Your task to perform on an android device: Go to privacy settings Image 0: 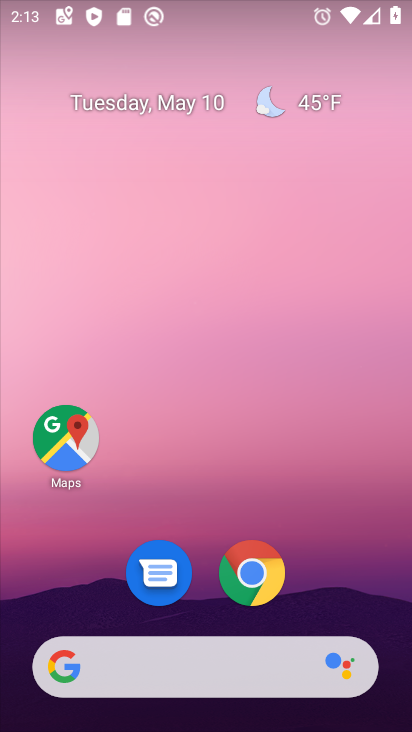
Step 0: drag from (221, 691) to (299, 14)
Your task to perform on an android device: Go to privacy settings Image 1: 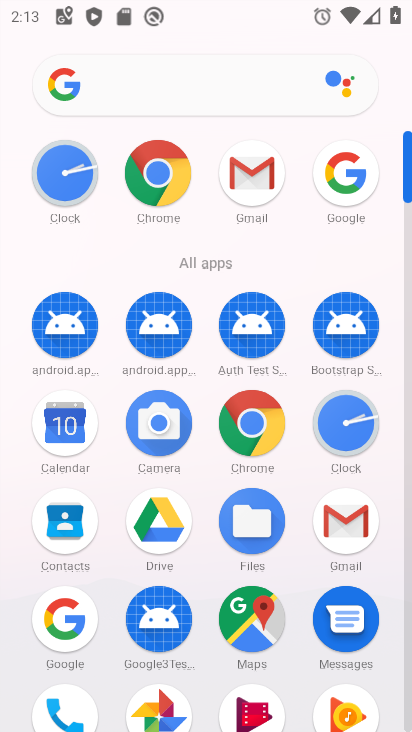
Step 1: drag from (270, 583) to (246, 153)
Your task to perform on an android device: Go to privacy settings Image 2: 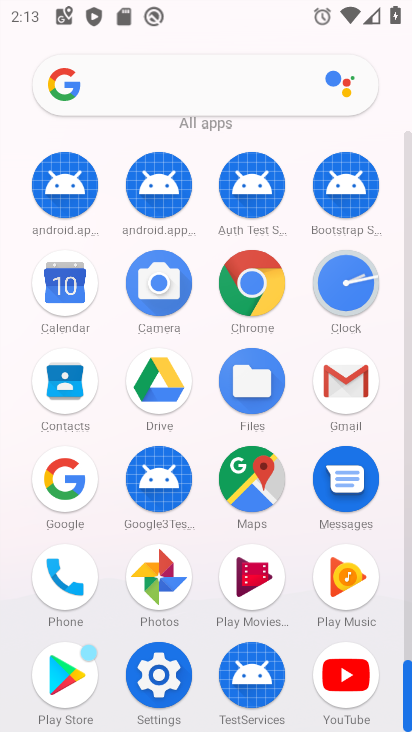
Step 2: click (168, 680)
Your task to perform on an android device: Go to privacy settings Image 3: 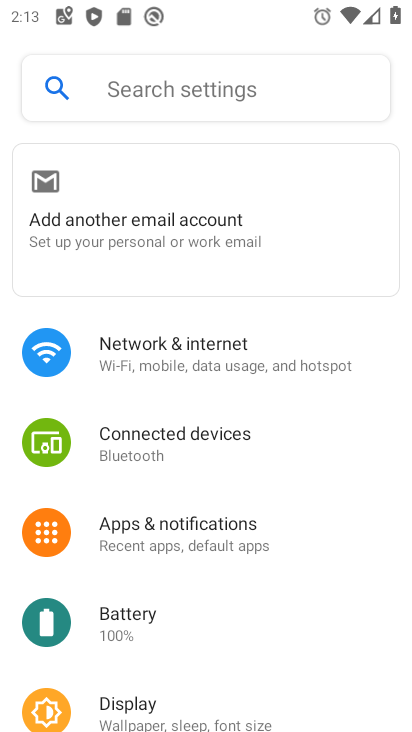
Step 3: drag from (253, 661) to (196, 269)
Your task to perform on an android device: Go to privacy settings Image 4: 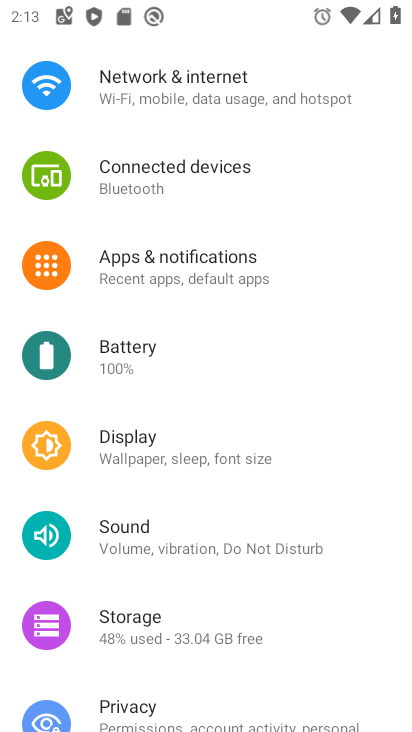
Step 4: drag from (335, 161) to (282, 481)
Your task to perform on an android device: Go to privacy settings Image 5: 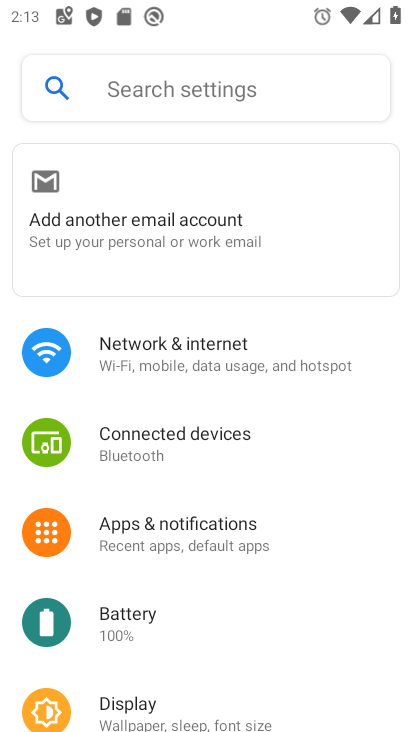
Step 5: drag from (253, 648) to (189, 160)
Your task to perform on an android device: Go to privacy settings Image 6: 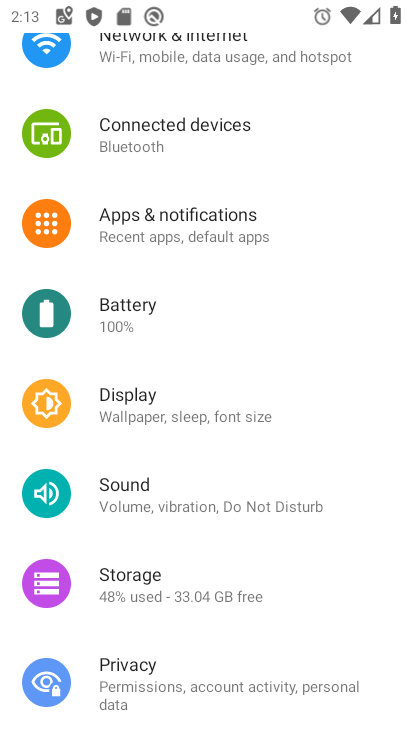
Step 6: click (175, 676)
Your task to perform on an android device: Go to privacy settings Image 7: 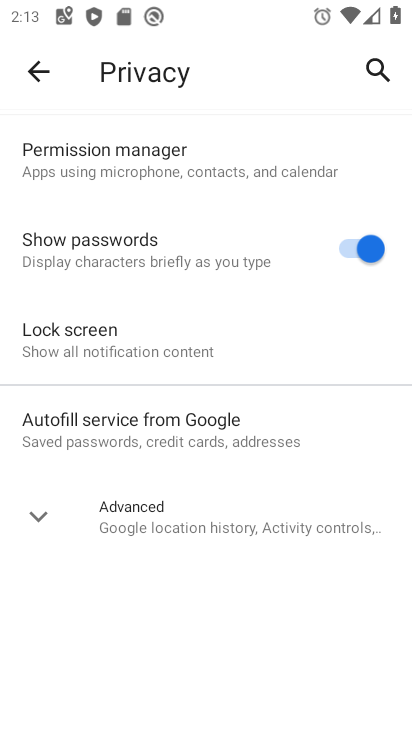
Step 7: task complete